Your task to perform on an android device: check google app version Image 0: 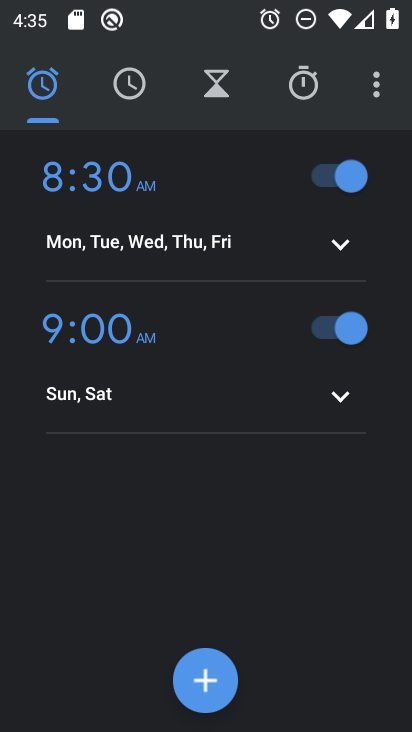
Step 0: press back button
Your task to perform on an android device: check google app version Image 1: 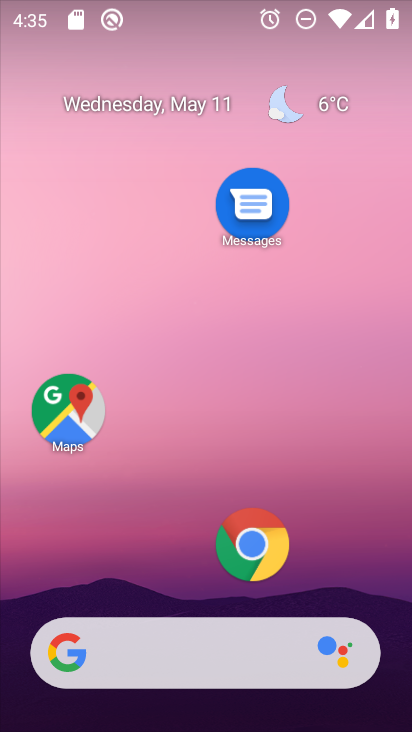
Step 1: drag from (165, 514) to (281, 15)
Your task to perform on an android device: check google app version Image 2: 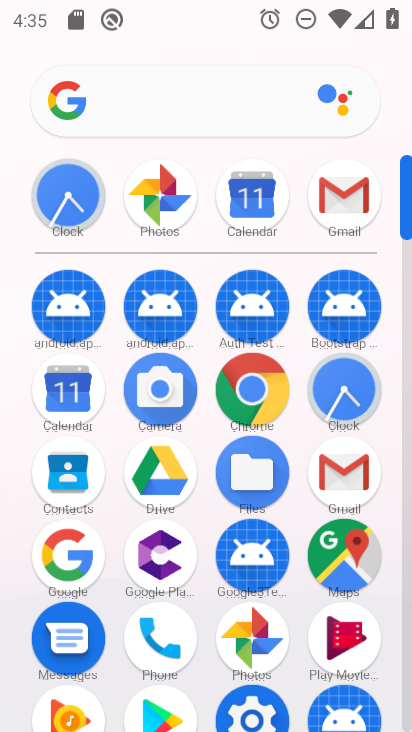
Step 2: drag from (184, 627) to (253, 176)
Your task to perform on an android device: check google app version Image 3: 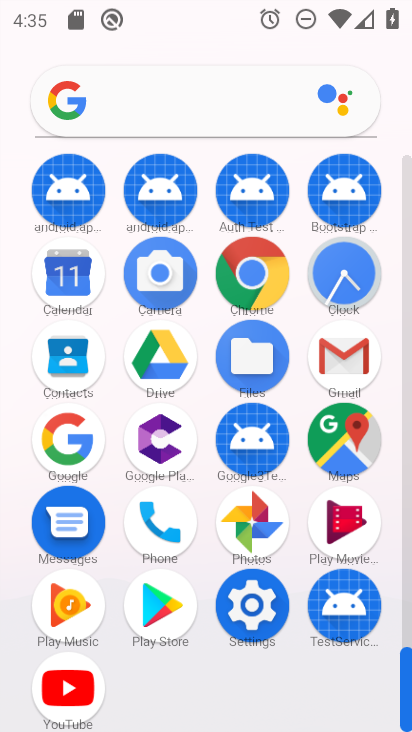
Step 3: click (70, 452)
Your task to perform on an android device: check google app version Image 4: 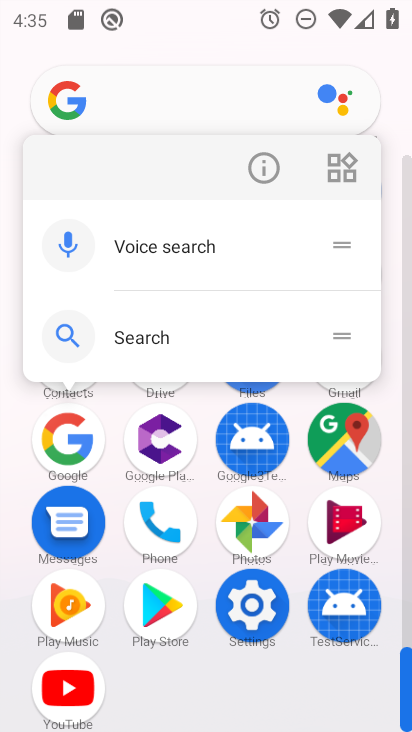
Step 4: click (269, 167)
Your task to perform on an android device: check google app version Image 5: 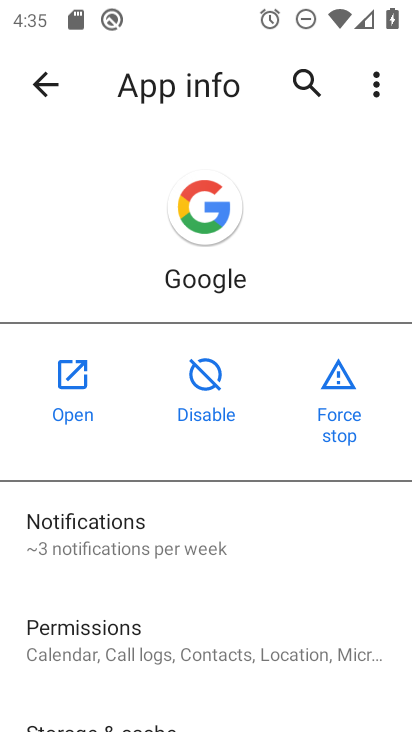
Step 5: drag from (162, 575) to (278, 4)
Your task to perform on an android device: check google app version Image 6: 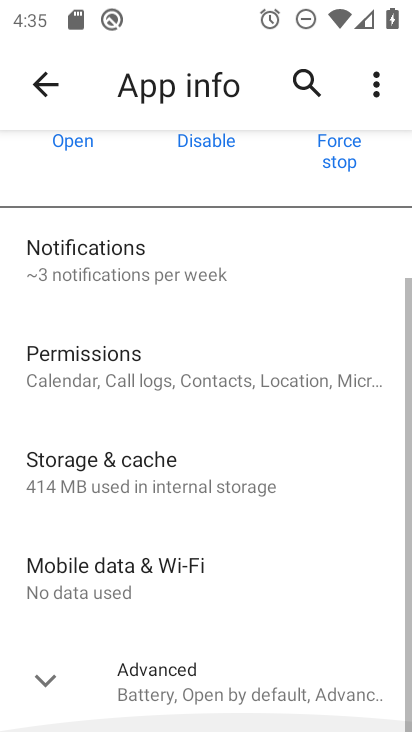
Step 6: drag from (210, 617) to (321, 62)
Your task to perform on an android device: check google app version Image 7: 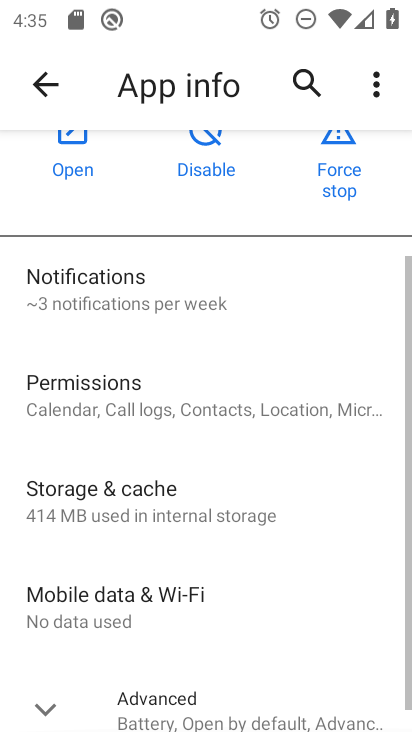
Step 7: click (155, 691)
Your task to perform on an android device: check google app version Image 8: 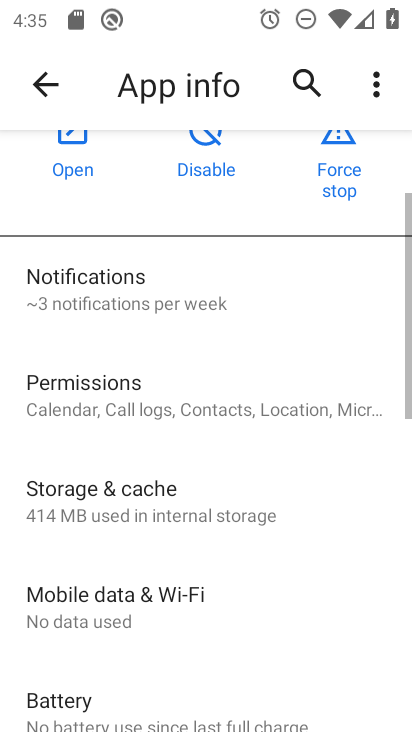
Step 8: drag from (184, 597) to (308, 17)
Your task to perform on an android device: check google app version Image 9: 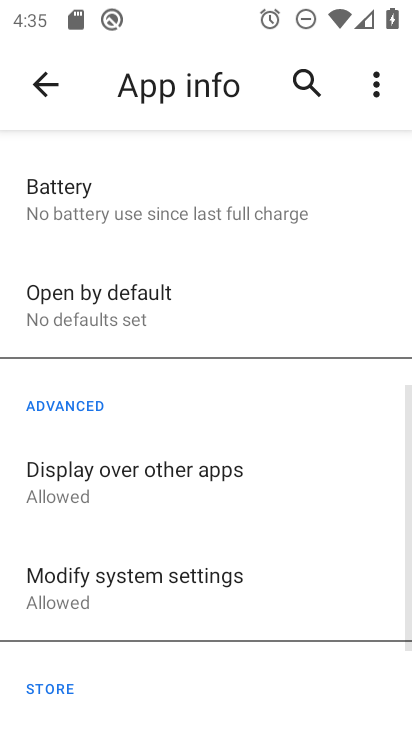
Step 9: drag from (141, 647) to (287, 47)
Your task to perform on an android device: check google app version Image 10: 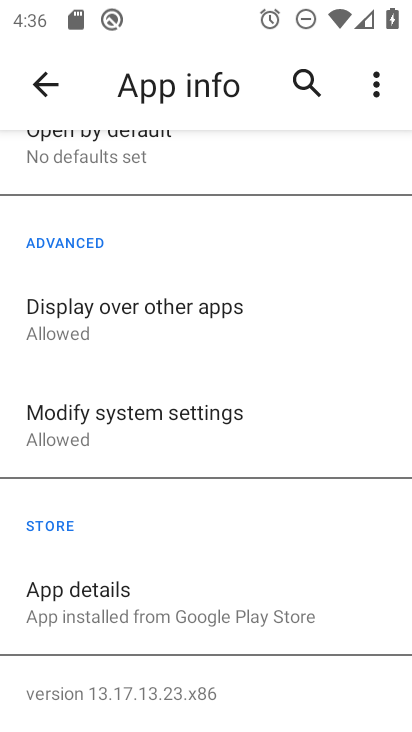
Step 10: click (114, 700)
Your task to perform on an android device: check google app version Image 11: 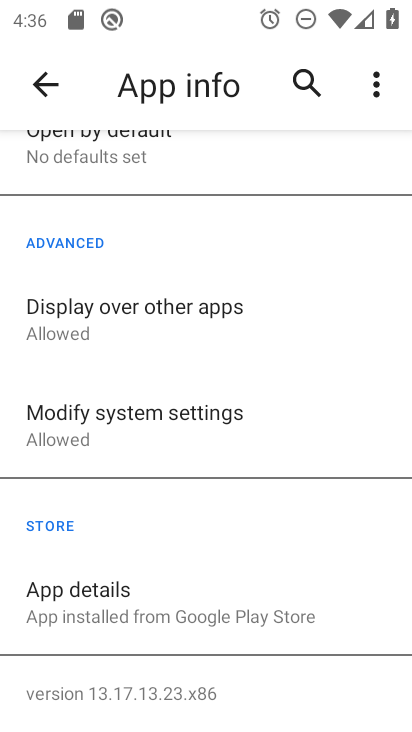
Step 11: task complete